Your task to perform on an android device: turn vacation reply on in the gmail app Image 0: 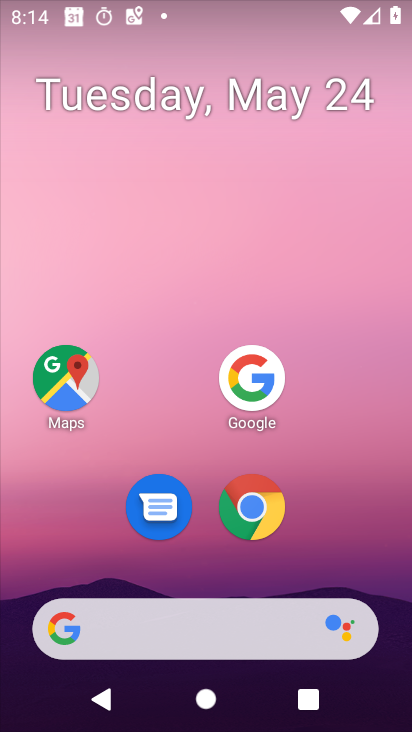
Step 0: drag from (189, 624) to (254, 112)
Your task to perform on an android device: turn vacation reply on in the gmail app Image 1: 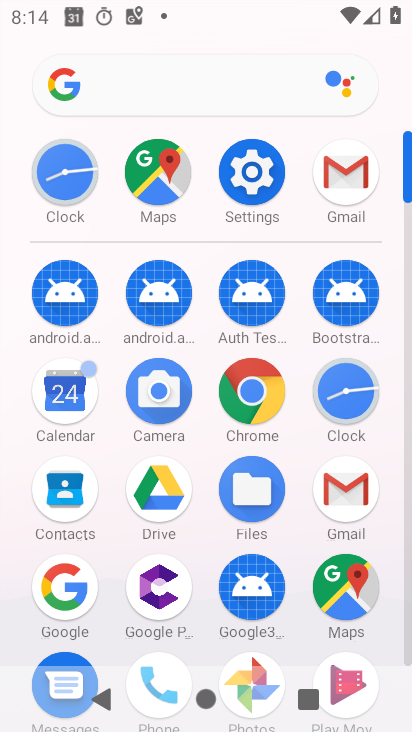
Step 1: click (336, 174)
Your task to perform on an android device: turn vacation reply on in the gmail app Image 2: 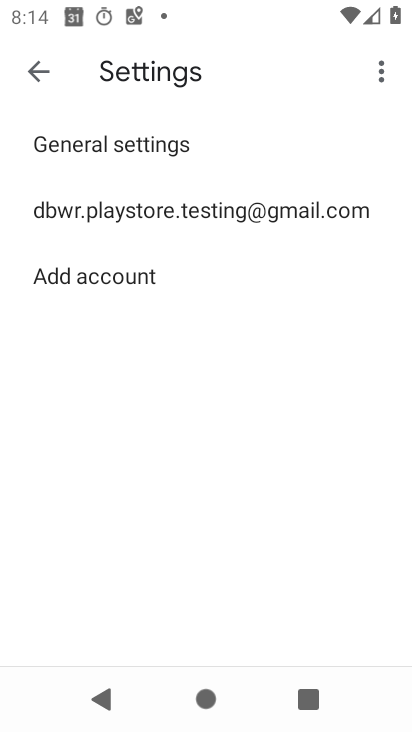
Step 2: click (254, 206)
Your task to perform on an android device: turn vacation reply on in the gmail app Image 3: 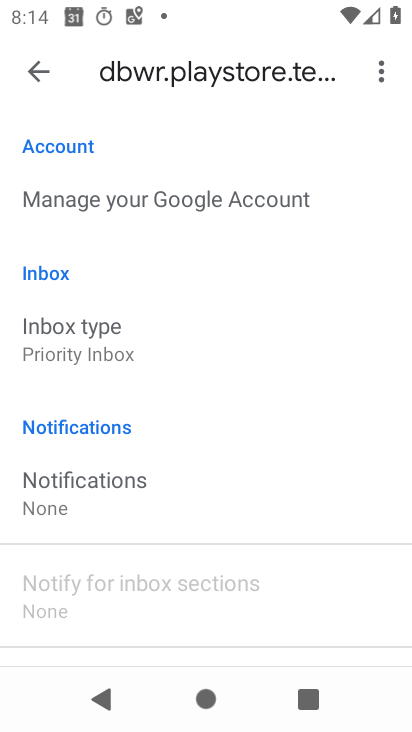
Step 3: drag from (151, 617) to (252, 146)
Your task to perform on an android device: turn vacation reply on in the gmail app Image 4: 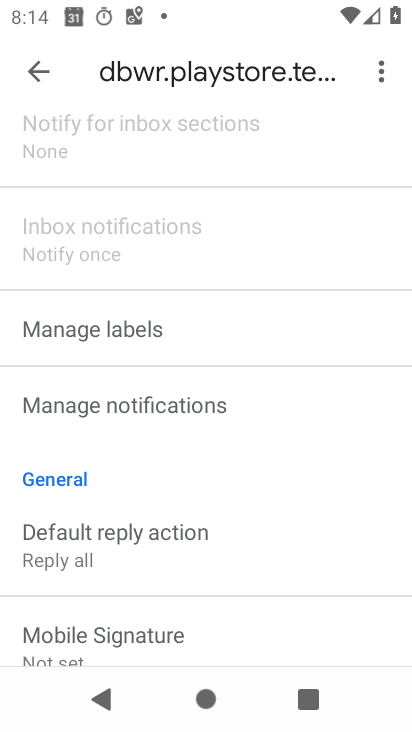
Step 4: drag from (236, 379) to (277, 143)
Your task to perform on an android device: turn vacation reply on in the gmail app Image 5: 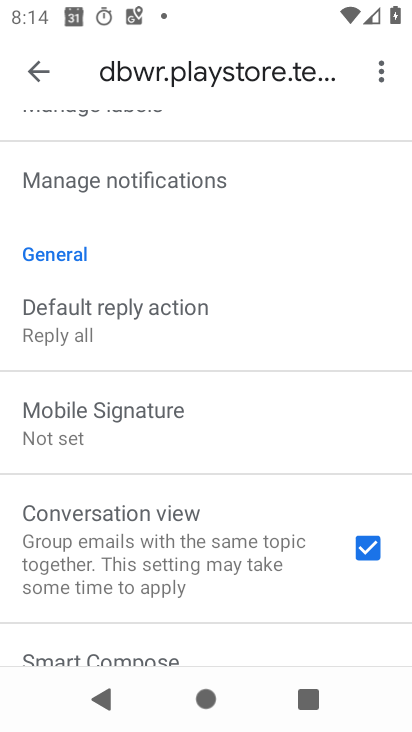
Step 5: drag from (148, 564) to (264, 149)
Your task to perform on an android device: turn vacation reply on in the gmail app Image 6: 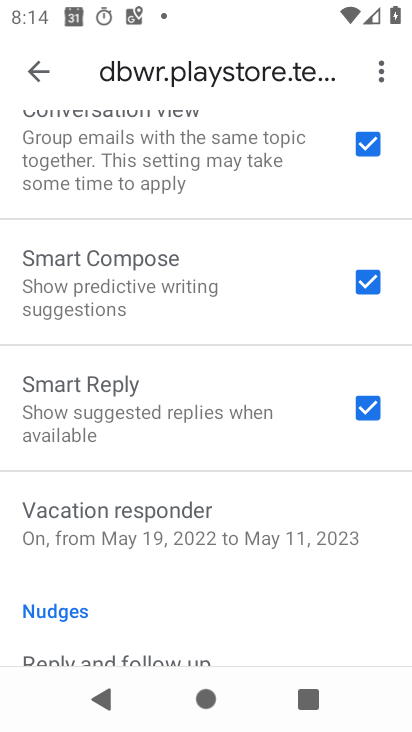
Step 6: click (183, 511)
Your task to perform on an android device: turn vacation reply on in the gmail app Image 7: 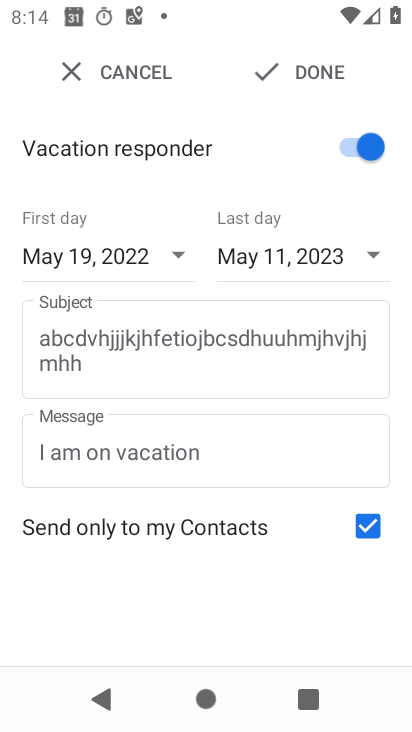
Step 7: task complete